Your task to perform on an android device: Search for pizza restaurants on Maps Image 0: 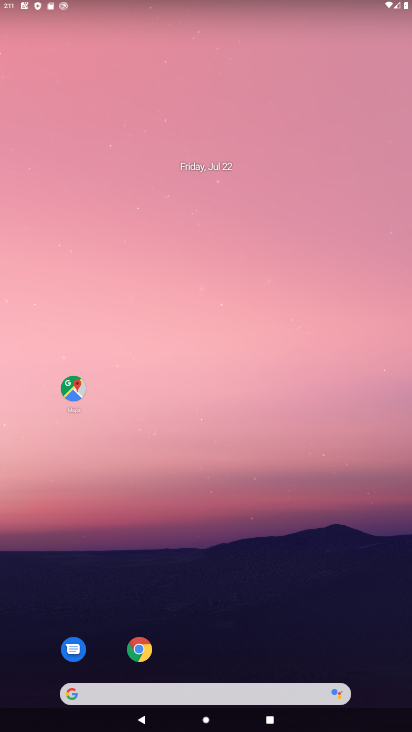
Step 0: click (76, 384)
Your task to perform on an android device: Search for pizza restaurants on Maps Image 1: 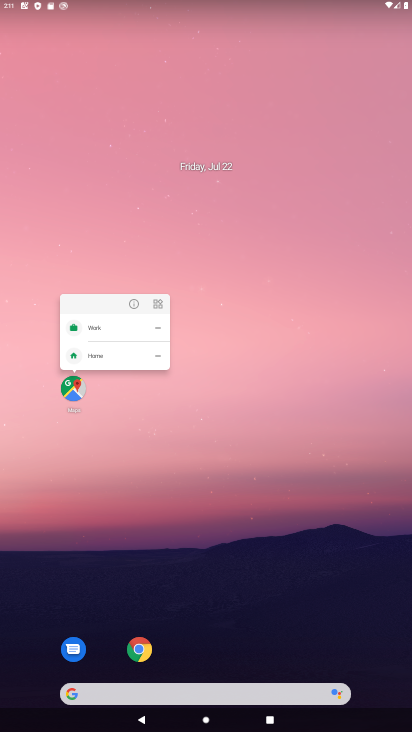
Step 1: click (133, 305)
Your task to perform on an android device: Search for pizza restaurants on Maps Image 2: 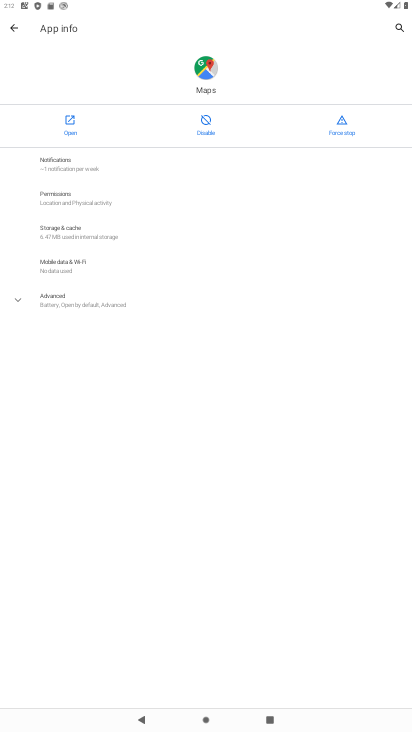
Step 2: click (74, 119)
Your task to perform on an android device: Search for pizza restaurants on Maps Image 3: 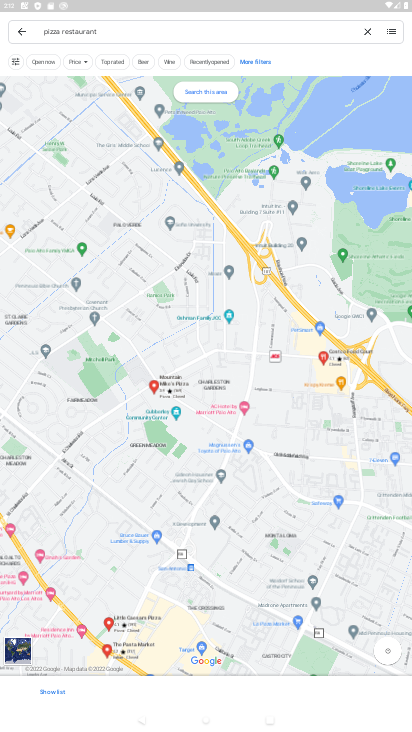
Step 3: task complete